Your task to perform on an android device: turn off notifications in google photos Image 0: 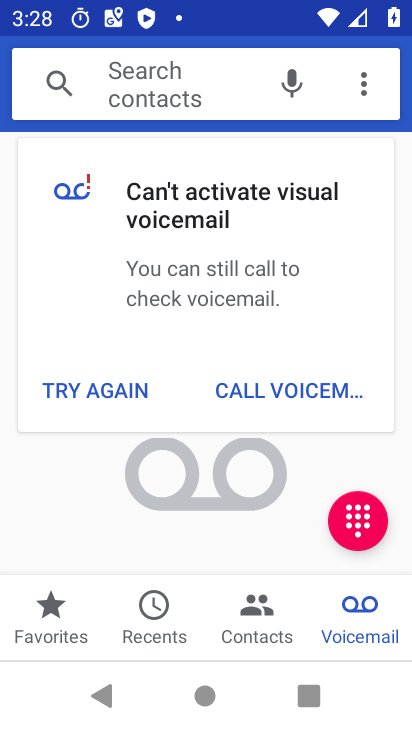
Step 0: press home button
Your task to perform on an android device: turn off notifications in google photos Image 1: 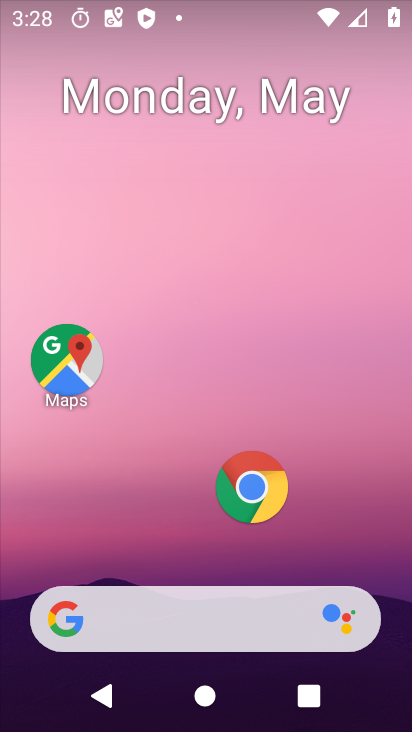
Step 1: drag from (162, 575) to (270, 94)
Your task to perform on an android device: turn off notifications in google photos Image 2: 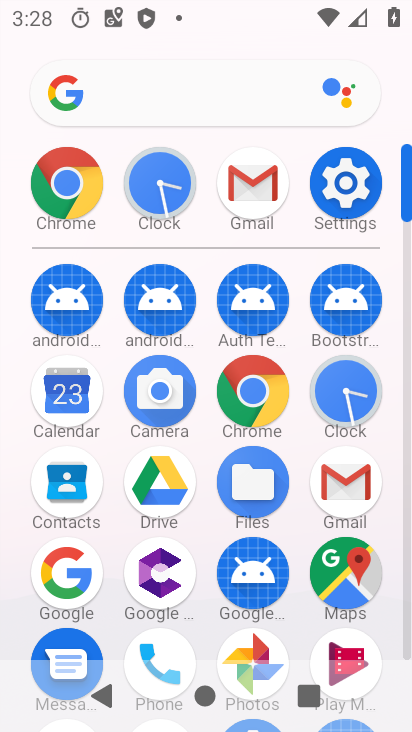
Step 2: click (243, 640)
Your task to perform on an android device: turn off notifications in google photos Image 3: 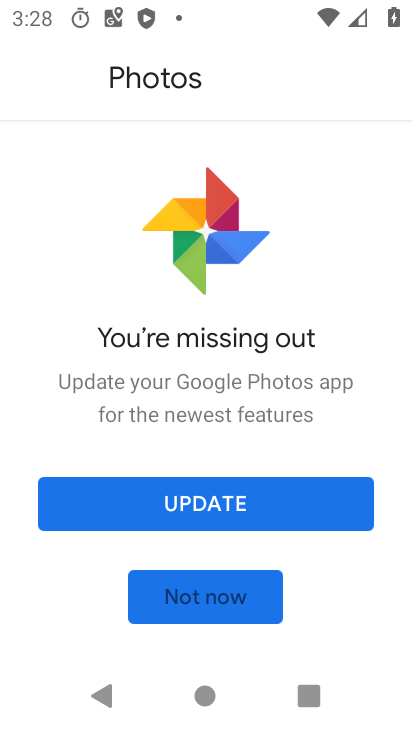
Step 3: click (223, 507)
Your task to perform on an android device: turn off notifications in google photos Image 4: 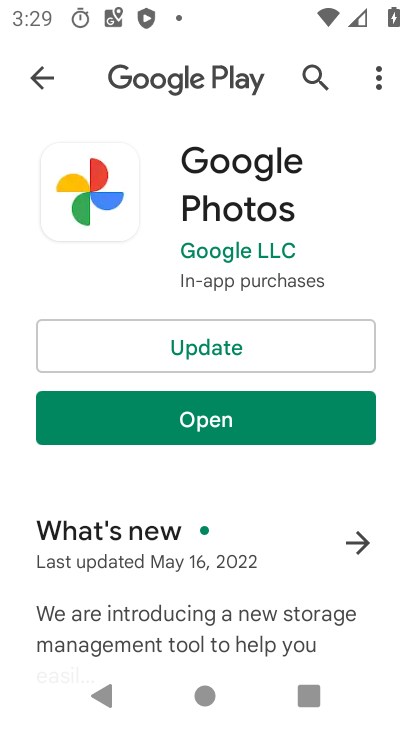
Step 4: click (230, 351)
Your task to perform on an android device: turn off notifications in google photos Image 5: 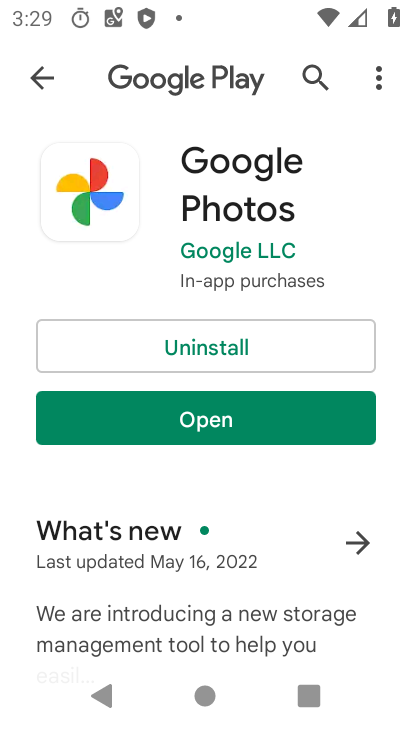
Step 5: click (228, 411)
Your task to perform on an android device: turn off notifications in google photos Image 6: 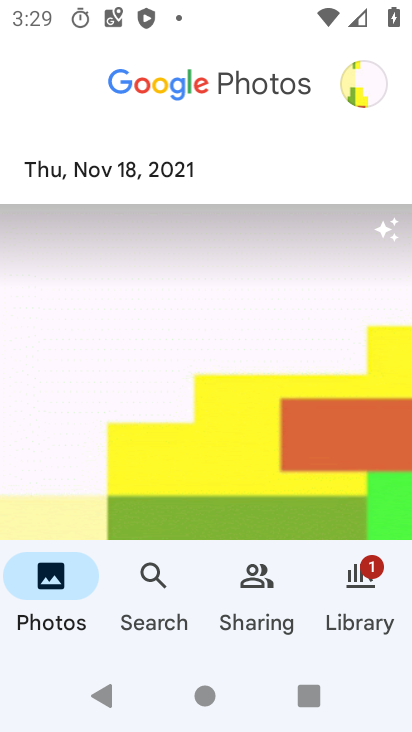
Step 6: click (366, 79)
Your task to perform on an android device: turn off notifications in google photos Image 7: 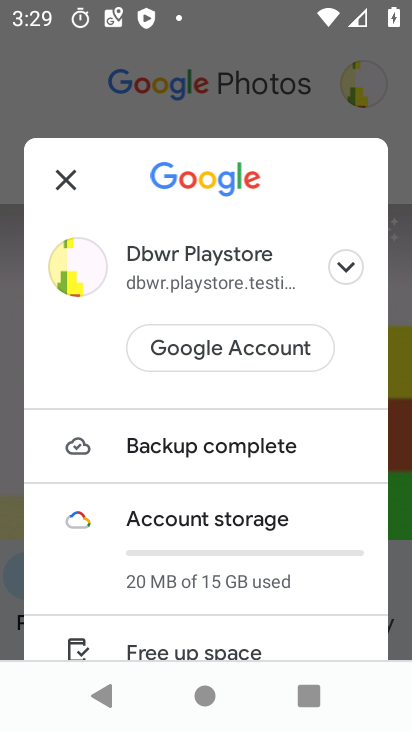
Step 7: drag from (192, 517) to (225, 263)
Your task to perform on an android device: turn off notifications in google photos Image 8: 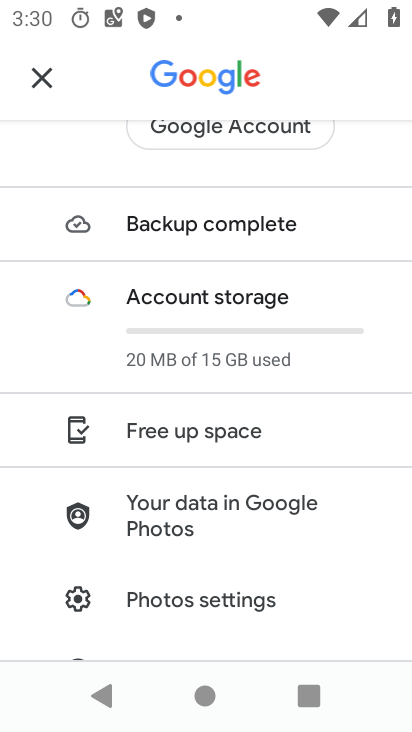
Step 8: click (182, 596)
Your task to perform on an android device: turn off notifications in google photos Image 9: 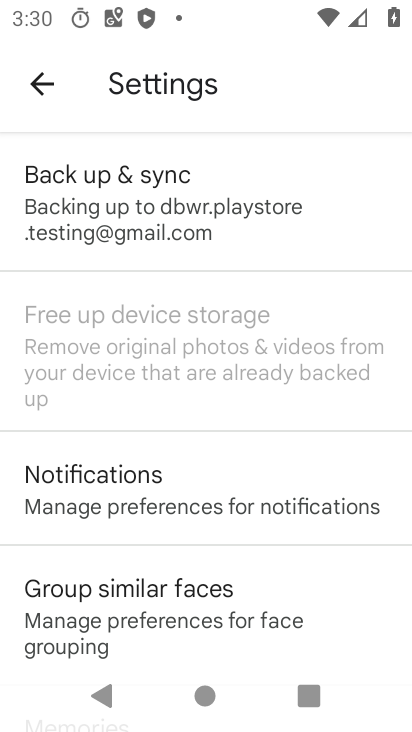
Step 9: click (145, 500)
Your task to perform on an android device: turn off notifications in google photos Image 10: 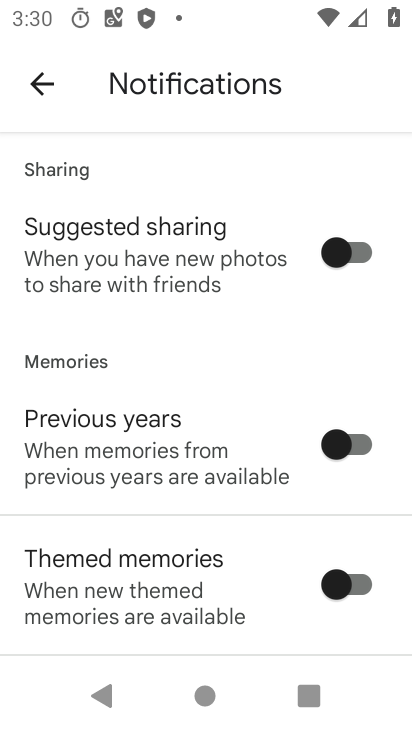
Step 10: drag from (155, 578) to (173, 245)
Your task to perform on an android device: turn off notifications in google photos Image 11: 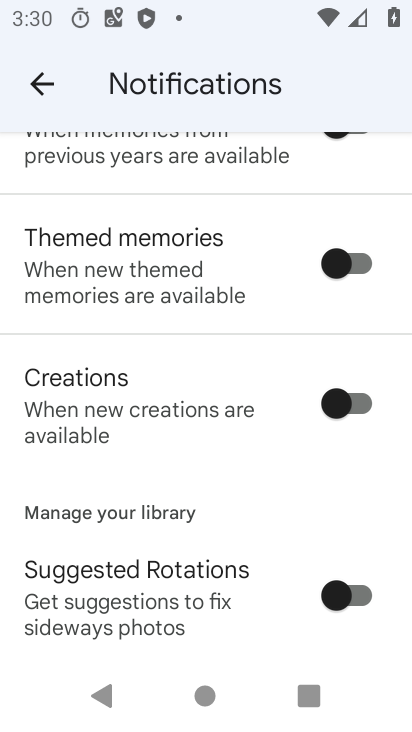
Step 11: drag from (138, 578) to (166, 232)
Your task to perform on an android device: turn off notifications in google photos Image 12: 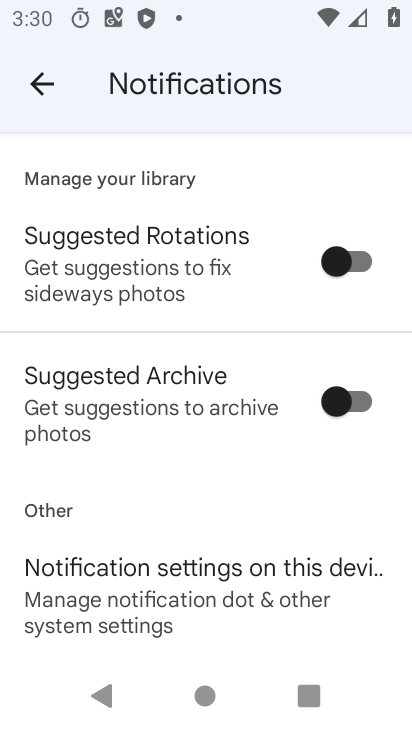
Step 12: click (158, 561)
Your task to perform on an android device: turn off notifications in google photos Image 13: 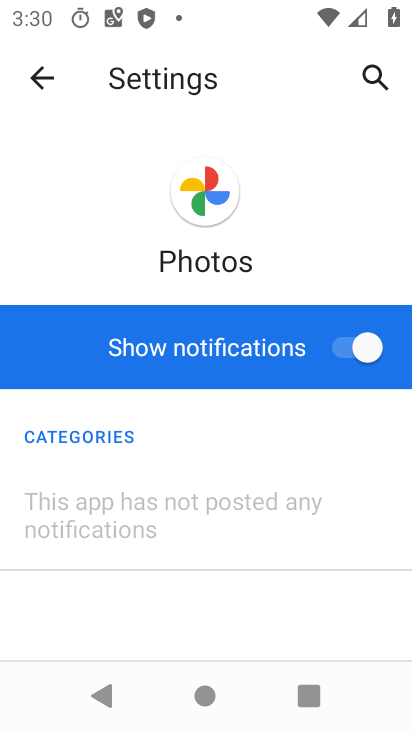
Step 13: click (354, 351)
Your task to perform on an android device: turn off notifications in google photos Image 14: 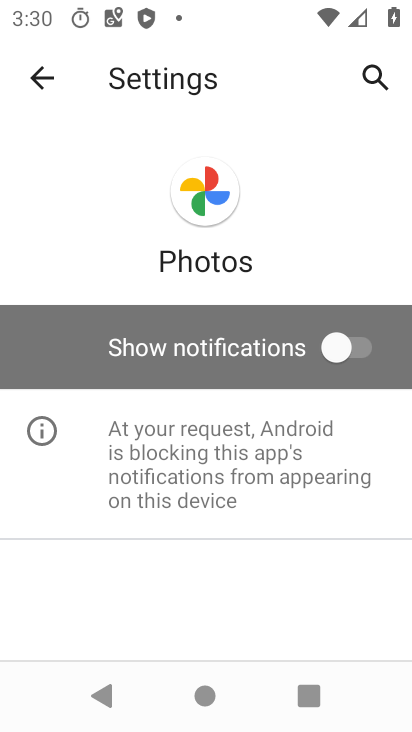
Step 14: task complete